Your task to perform on an android device: Is it going to rain this weekend? Image 0: 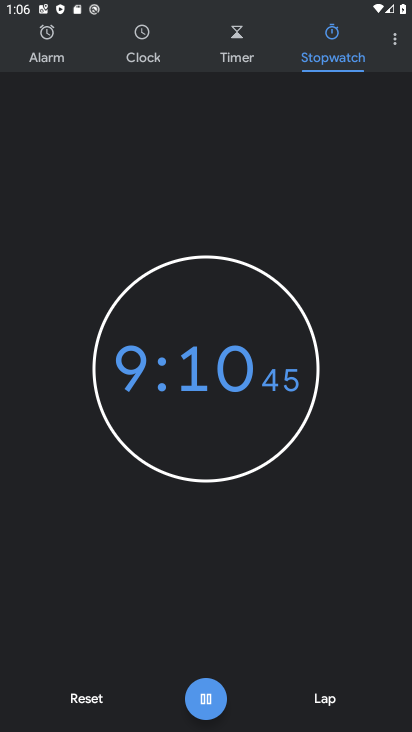
Step 0: press home button
Your task to perform on an android device: Is it going to rain this weekend? Image 1: 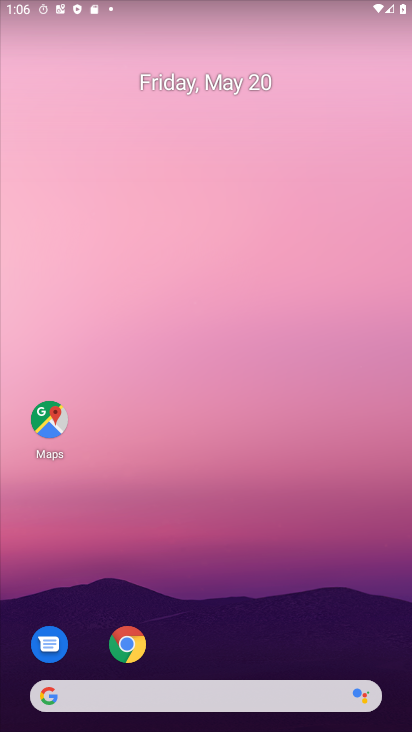
Step 1: drag from (297, 596) to (237, 155)
Your task to perform on an android device: Is it going to rain this weekend? Image 2: 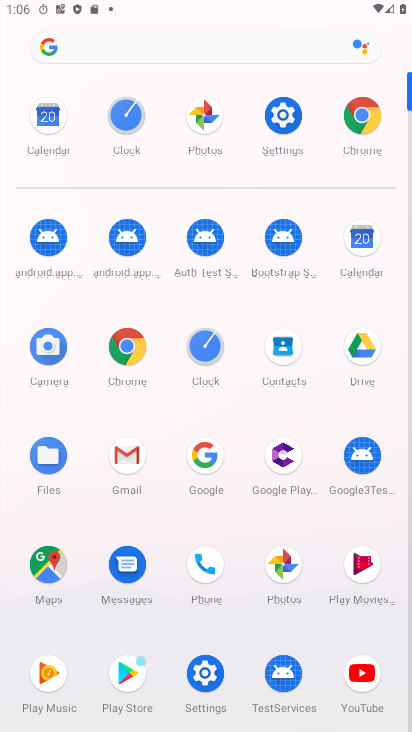
Step 2: press back button
Your task to perform on an android device: Is it going to rain this weekend? Image 3: 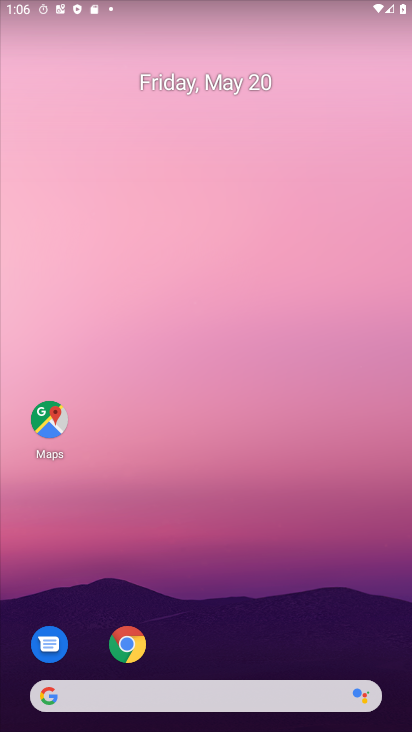
Step 3: click (51, 694)
Your task to perform on an android device: Is it going to rain this weekend? Image 4: 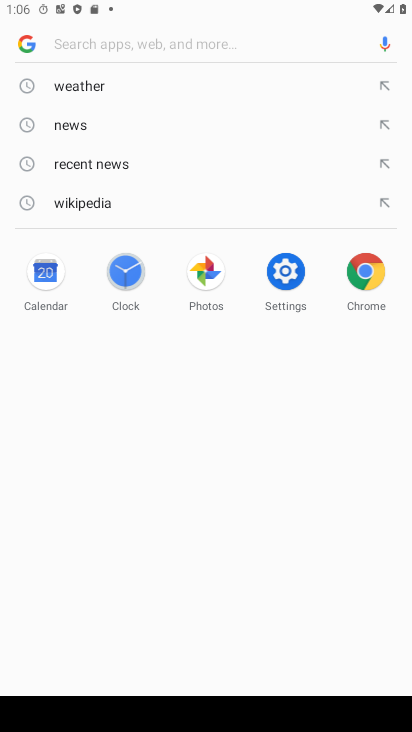
Step 4: click (26, 41)
Your task to perform on an android device: Is it going to rain this weekend? Image 5: 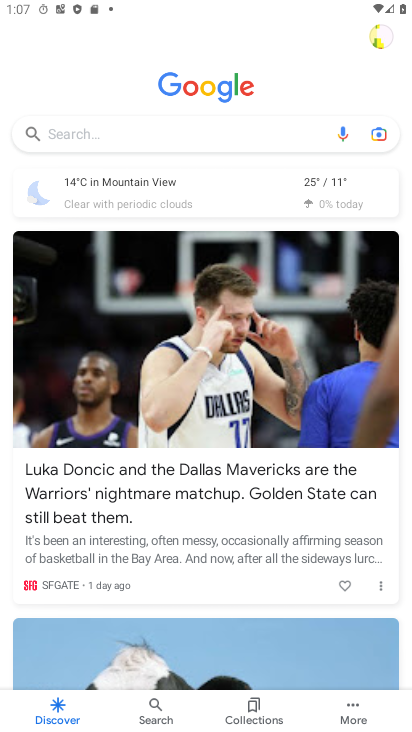
Step 5: click (196, 200)
Your task to perform on an android device: Is it going to rain this weekend? Image 6: 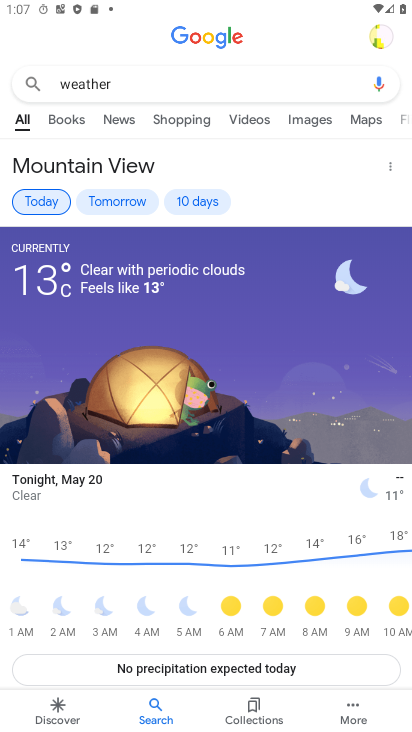
Step 6: task complete